Your task to perform on an android device: choose inbox layout in the gmail app Image 0: 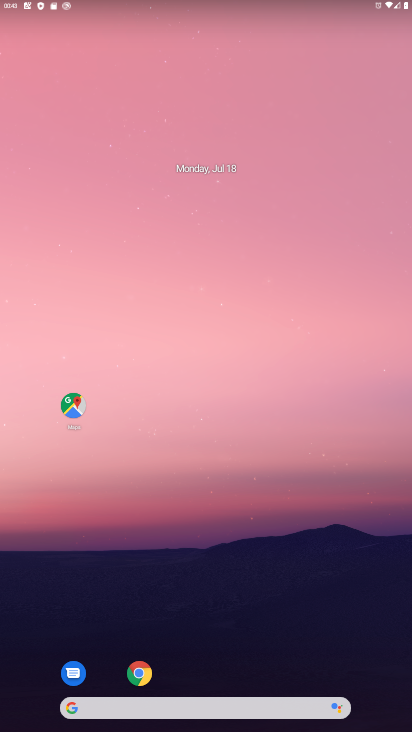
Step 0: drag from (256, 677) to (243, 197)
Your task to perform on an android device: choose inbox layout in the gmail app Image 1: 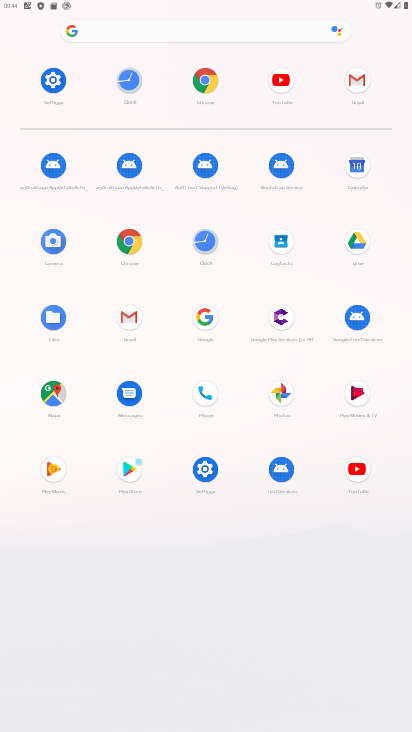
Step 1: click (365, 102)
Your task to perform on an android device: choose inbox layout in the gmail app Image 2: 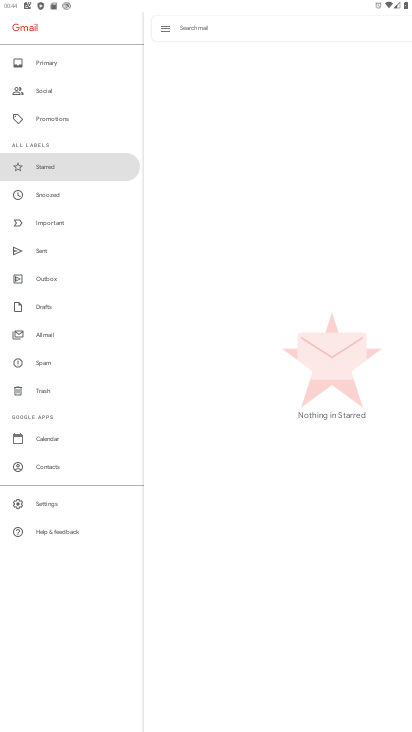
Step 2: click (71, 510)
Your task to perform on an android device: choose inbox layout in the gmail app Image 3: 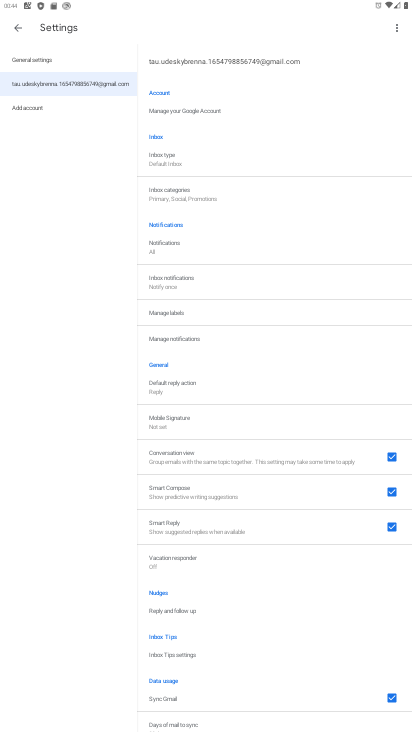
Step 3: task complete